Your task to perform on an android device: open app "Fetch Rewards" (install if not already installed) and enter user name: "Westwood@yahoo.com" and password: "qualifying" Image 0: 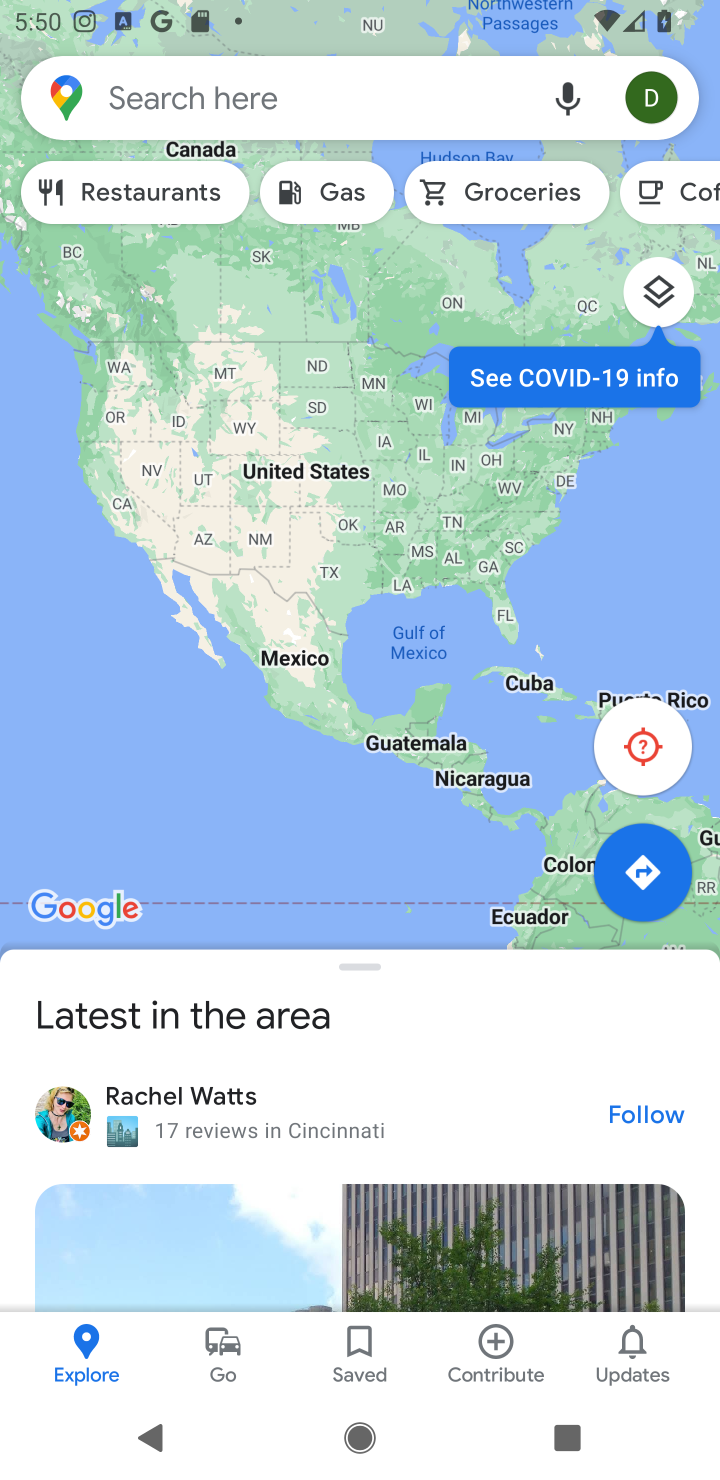
Step 0: press home button
Your task to perform on an android device: open app "Fetch Rewards" (install if not already installed) and enter user name: "Westwood@yahoo.com" and password: "qualifying" Image 1: 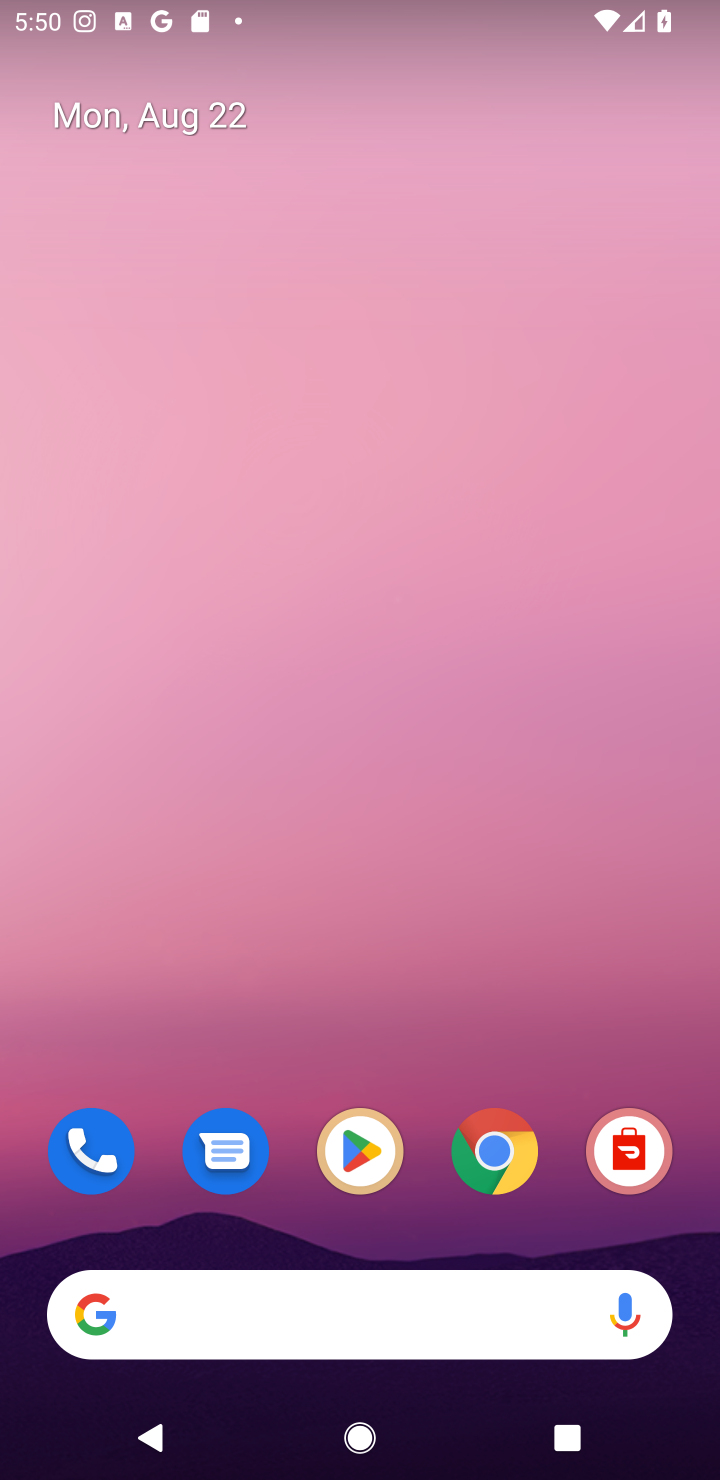
Step 1: click (356, 1152)
Your task to perform on an android device: open app "Fetch Rewards" (install if not already installed) and enter user name: "Westwood@yahoo.com" and password: "qualifying" Image 2: 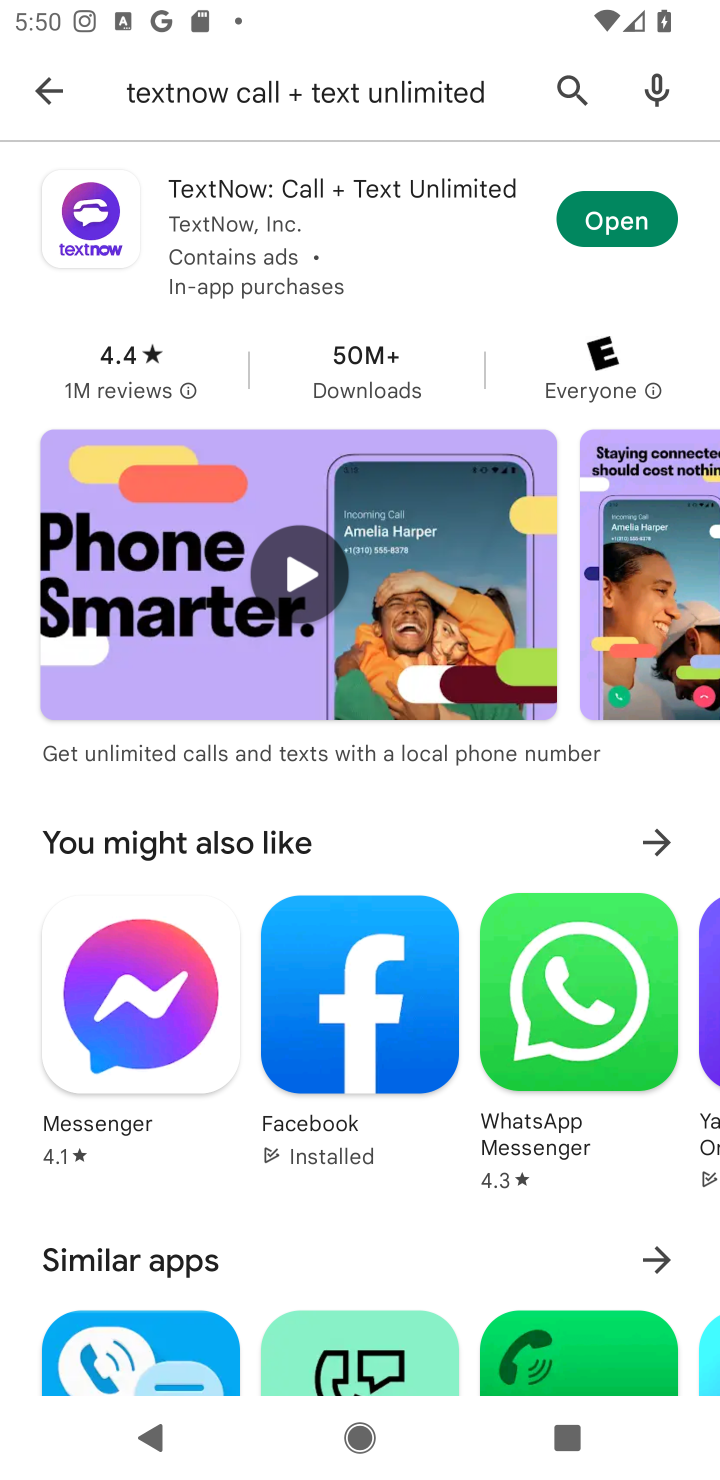
Step 2: click (578, 90)
Your task to perform on an android device: open app "Fetch Rewards" (install if not already installed) and enter user name: "Westwood@yahoo.com" and password: "qualifying" Image 3: 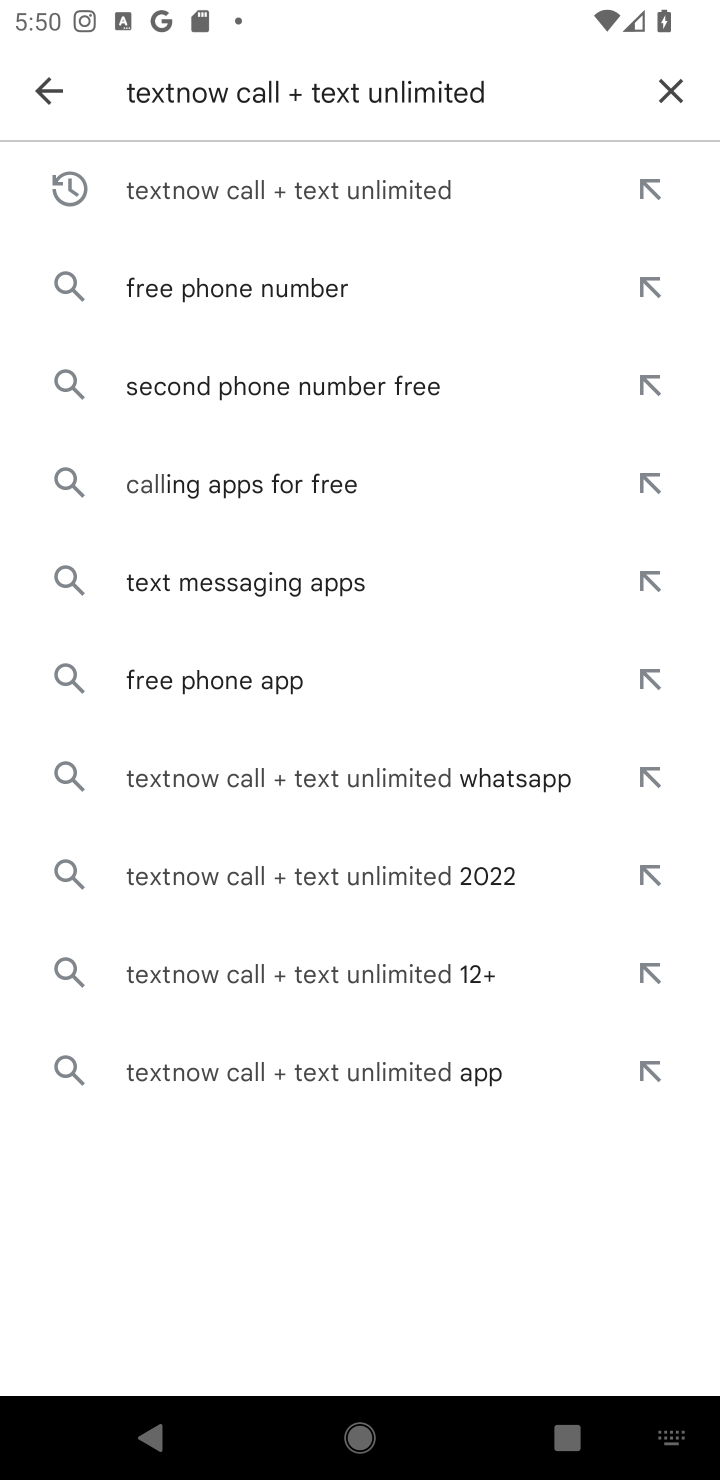
Step 3: click (676, 91)
Your task to perform on an android device: open app "Fetch Rewards" (install if not already installed) and enter user name: "Westwood@yahoo.com" and password: "qualifying" Image 4: 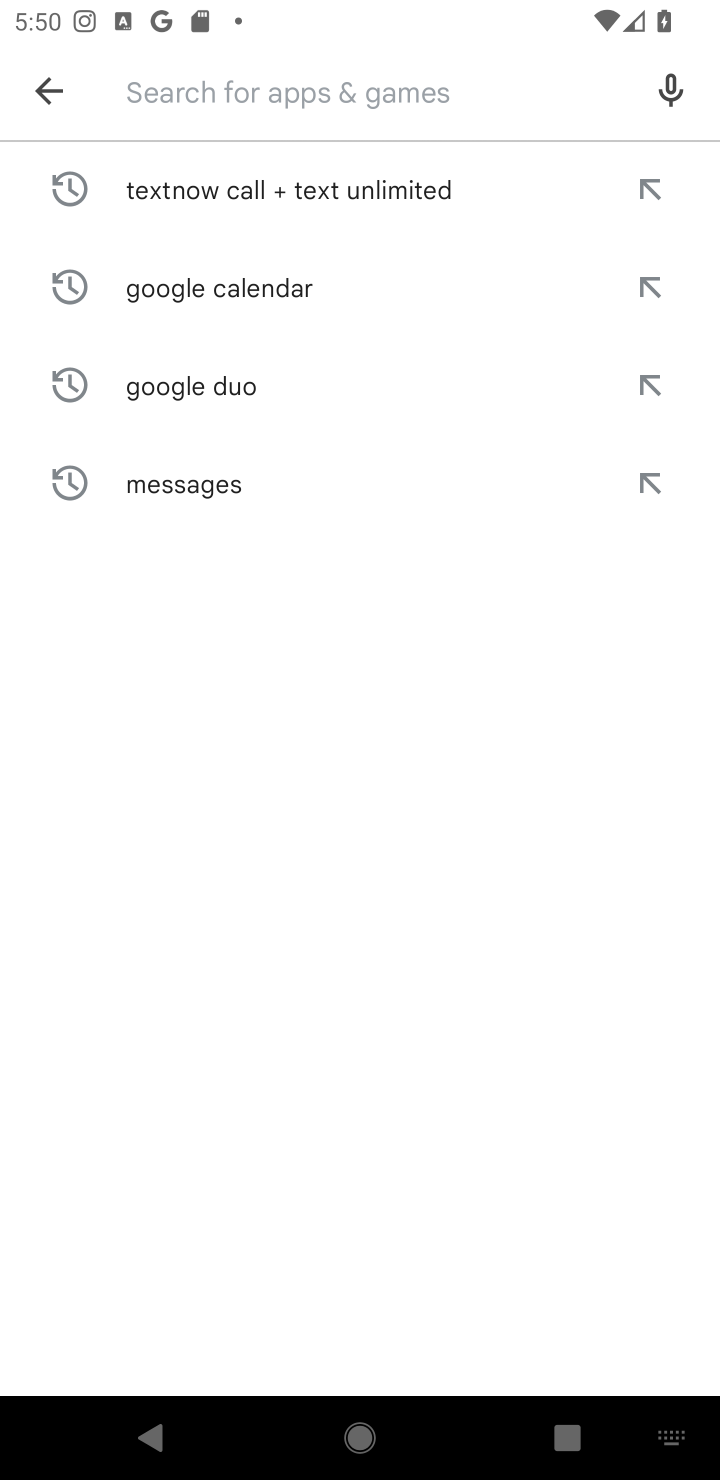
Step 4: type "Fetch Rewards"
Your task to perform on an android device: open app "Fetch Rewards" (install if not already installed) and enter user name: "Westwood@yahoo.com" and password: "qualifying" Image 5: 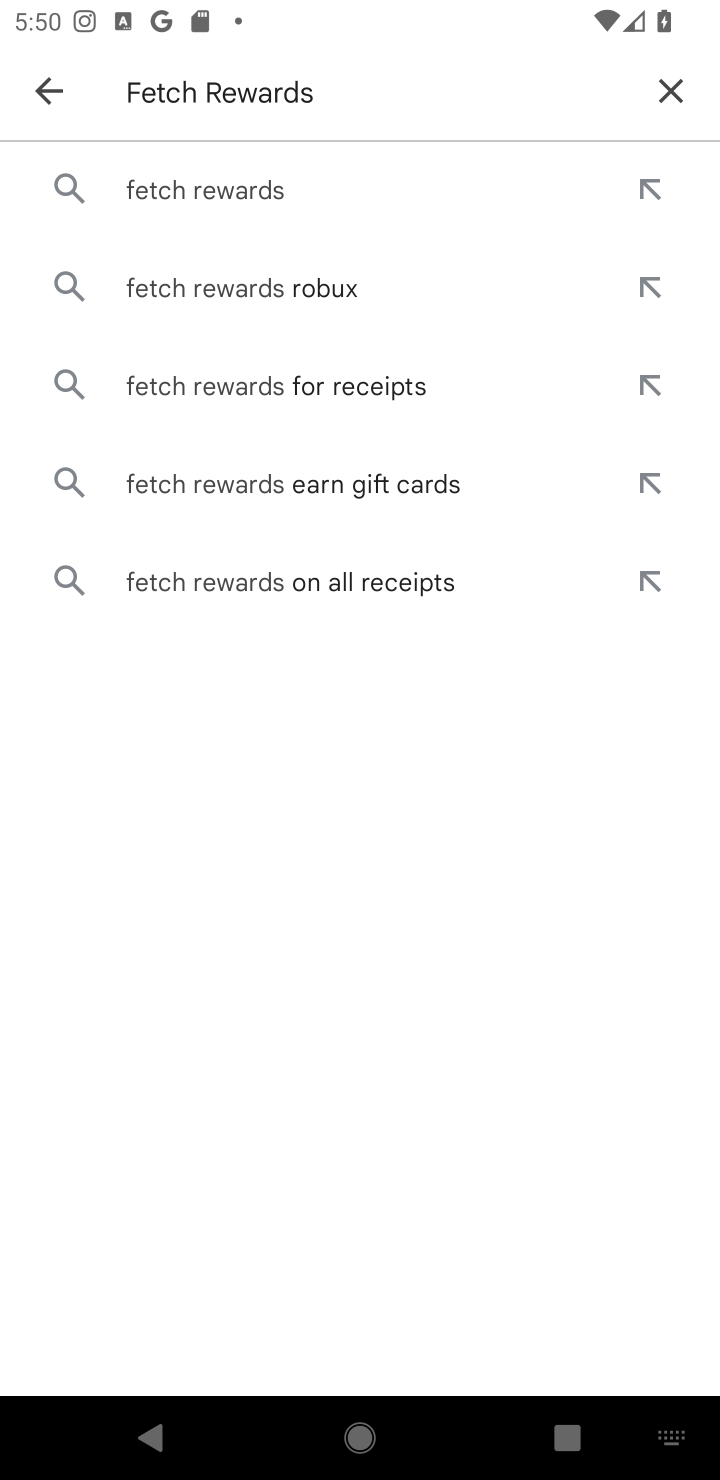
Step 5: click (259, 174)
Your task to perform on an android device: open app "Fetch Rewards" (install if not already installed) and enter user name: "Westwood@yahoo.com" and password: "qualifying" Image 6: 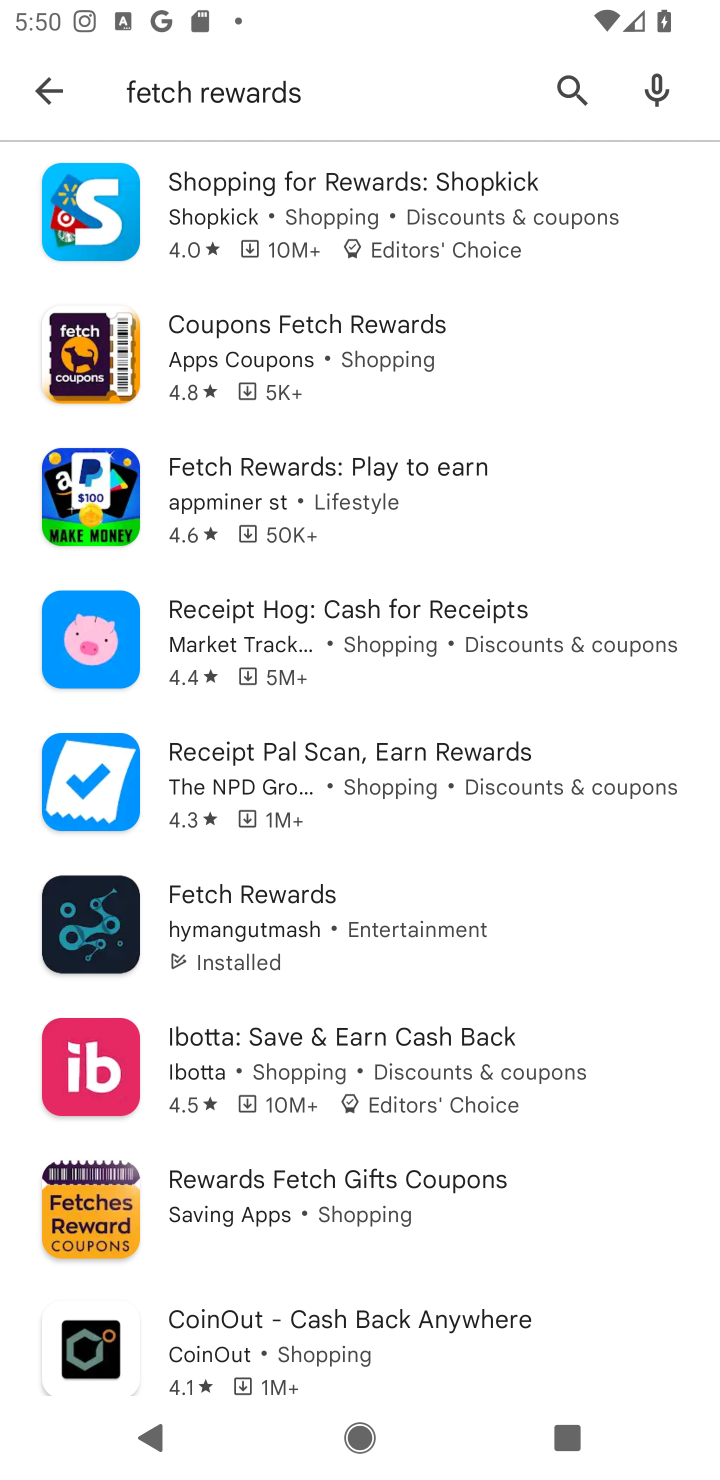
Step 6: click (244, 907)
Your task to perform on an android device: open app "Fetch Rewards" (install if not already installed) and enter user name: "Westwood@yahoo.com" and password: "qualifying" Image 7: 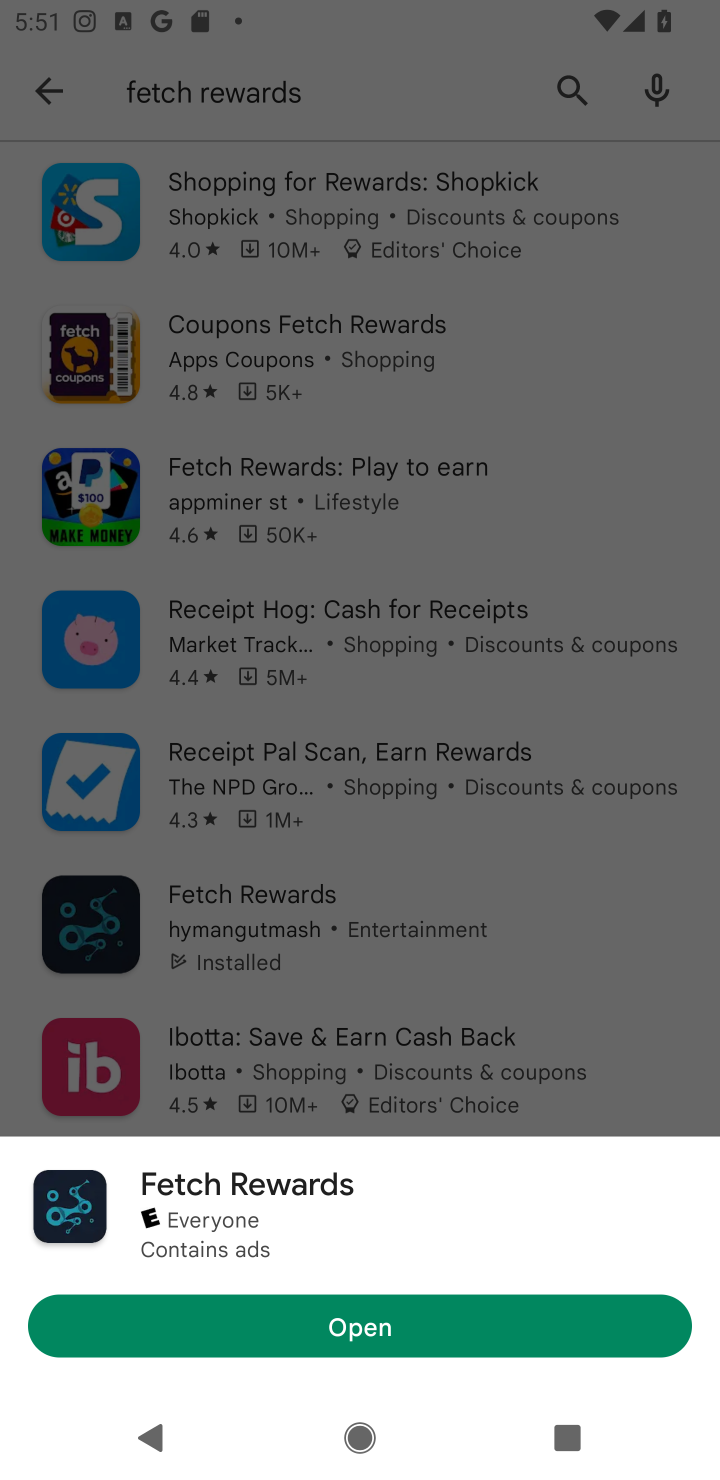
Step 7: click (347, 1330)
Your task to perform on an android device: open app "Fetch Rewards" (install if not already installed) and enter user name: "Westwood@yahoo.com" and password: "qualifying" Image 8: 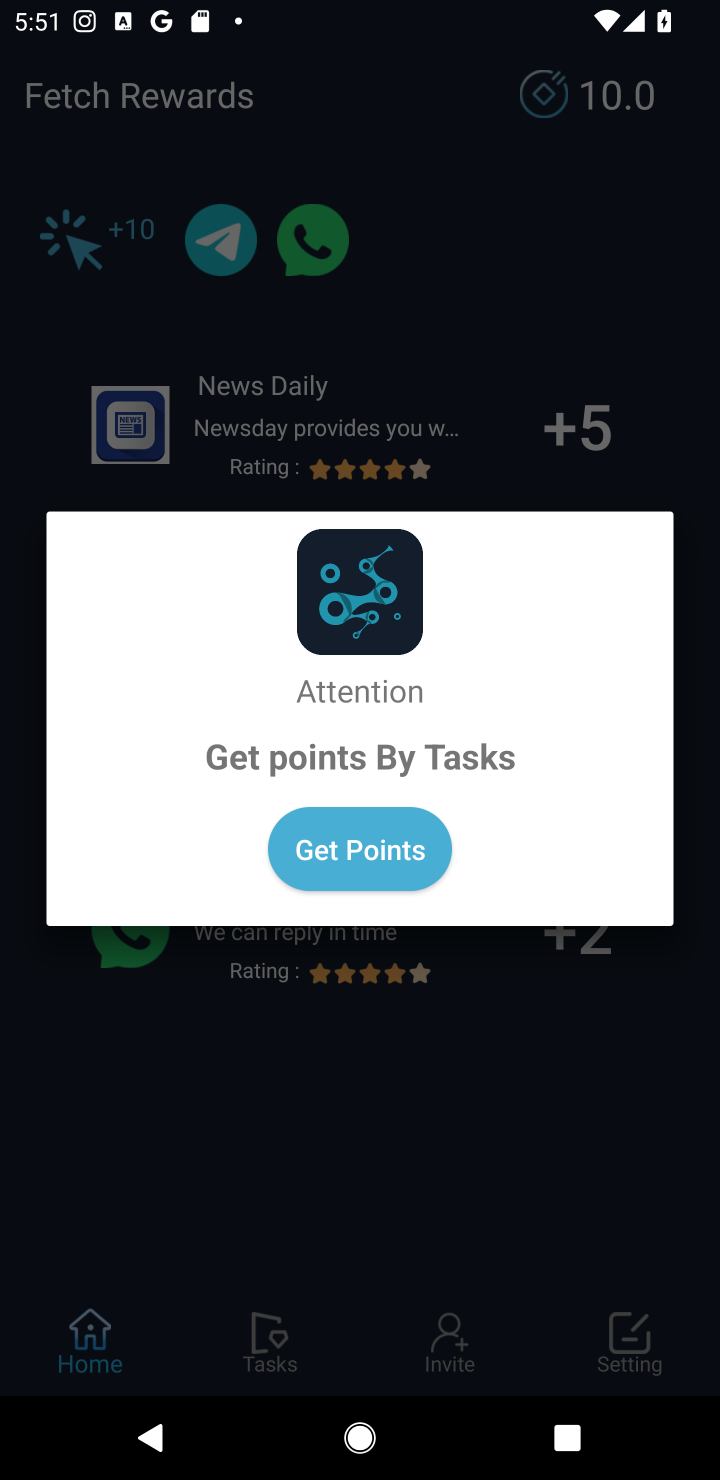
Step 8: task complete